Your task to perform on an android device: Go to Google Image 0: 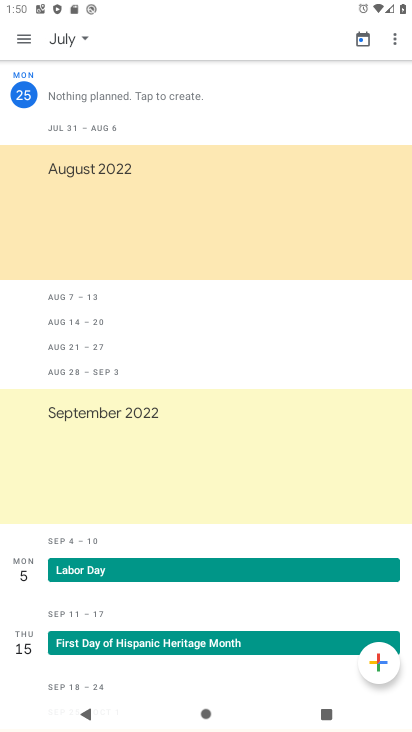
Step 0: press home button
Your task to perform on an android device: Go to Google Image 1: 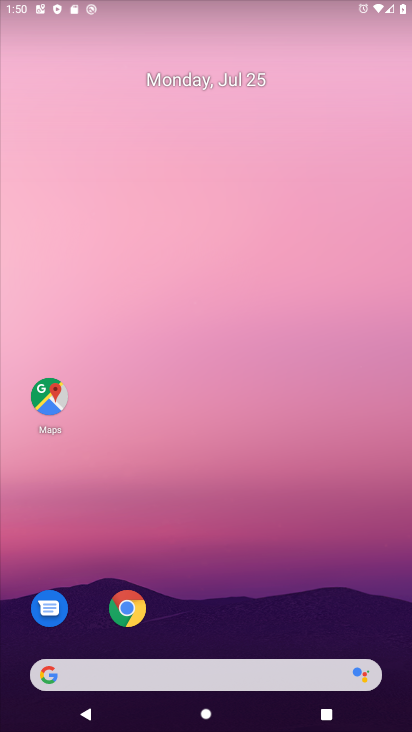
Step 1: drag from (259, 629) to (254, 113)
Your task to perform on an android device: Go to Google Image 2: 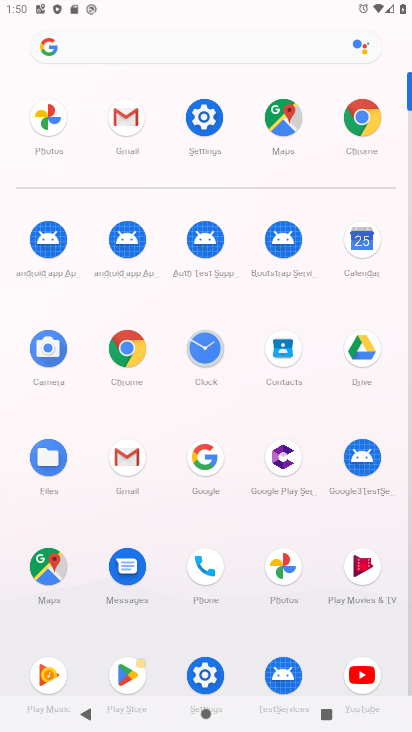
Step 2: click (211, 461)
Your task to perform on an android device: Go to Google Image 3: 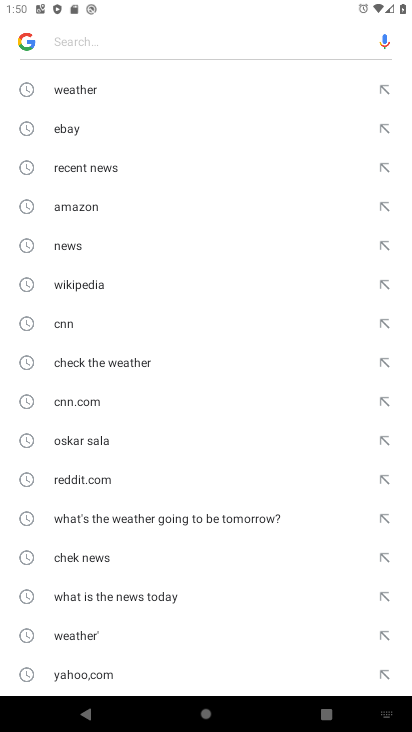
Step 3: task complete